Your task to perform on an android device: add a label to a message in the gmail app Image 0: 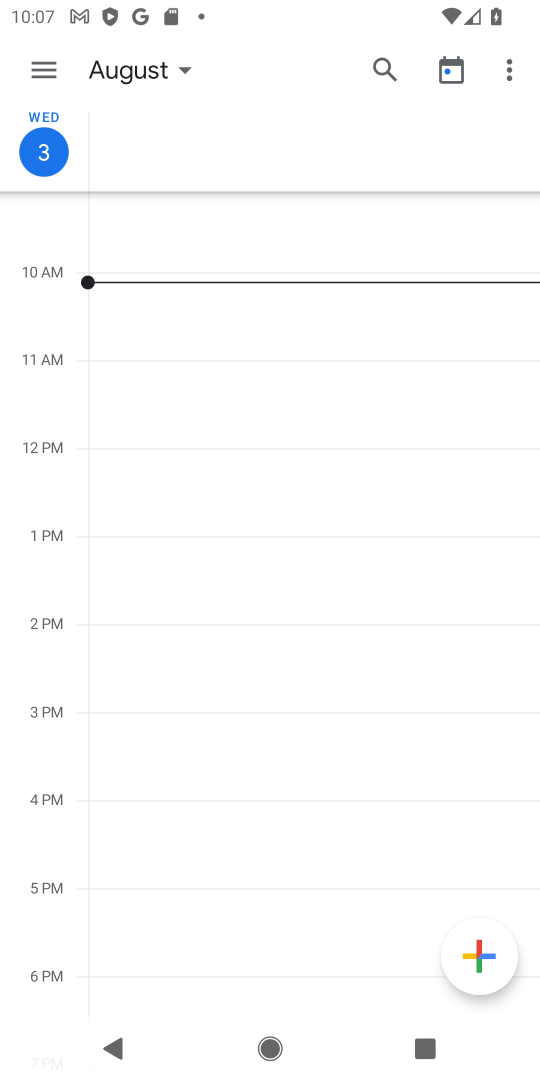
Step 0: press home button
Your task to perform on an android device: add a label to a message in the gmail app Image 1: 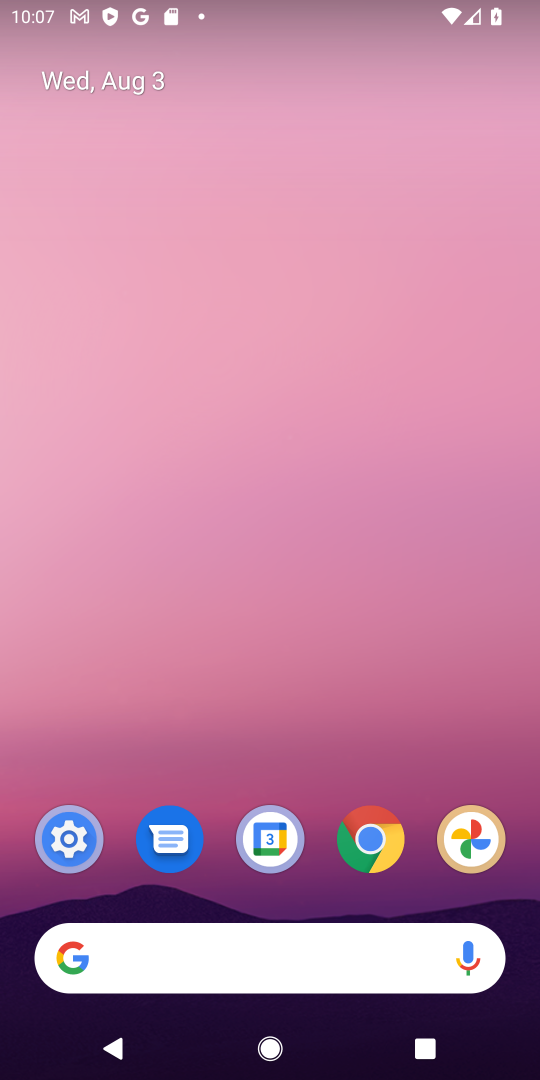
Step 1: drag from (265, 855) to (306, 107)
Your task to perform on an android device: add a label to a message in the gmail app Image 2: 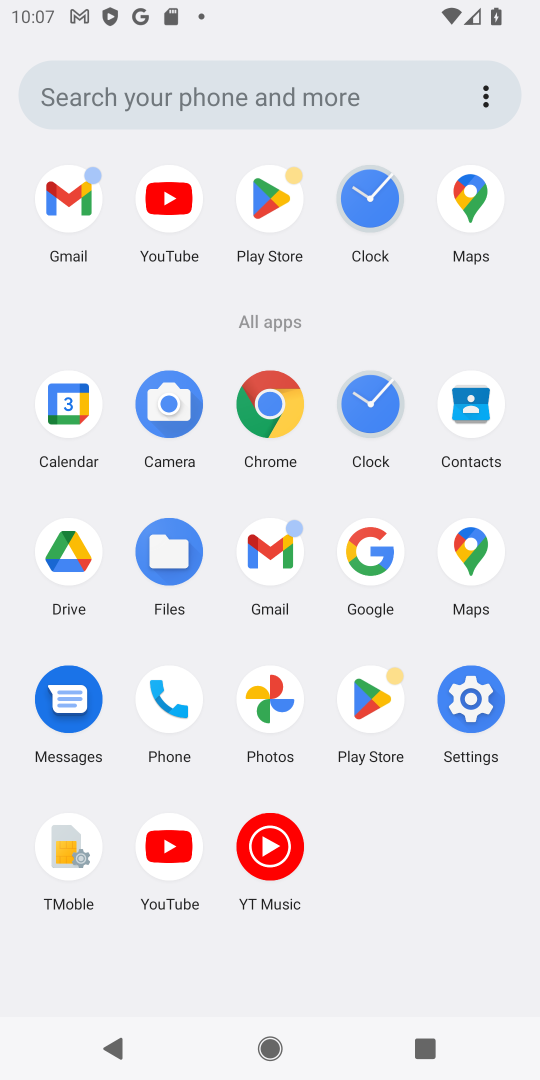
Step 2: click (268, 564)
Your task to perform on an android device: add a label to a message in the gmail app Image 3: 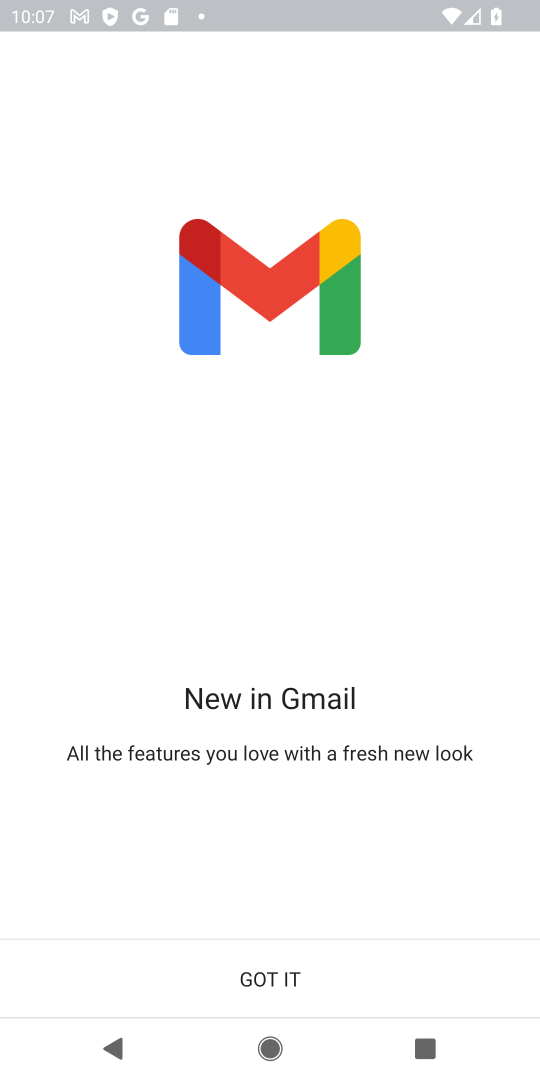
Step 3: click (287, 978)
Your task to perform on an android device: add a label to a message in the gmail app Image 4: 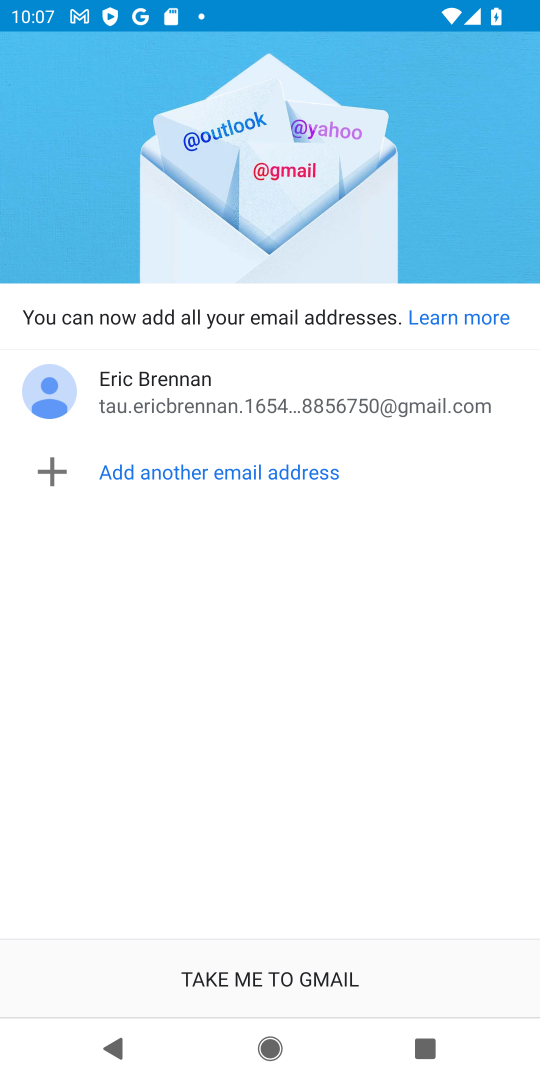
Step 4: click (296, 971)
Your task to perform on an android device: add a label to a message in the gmail app Image 5: 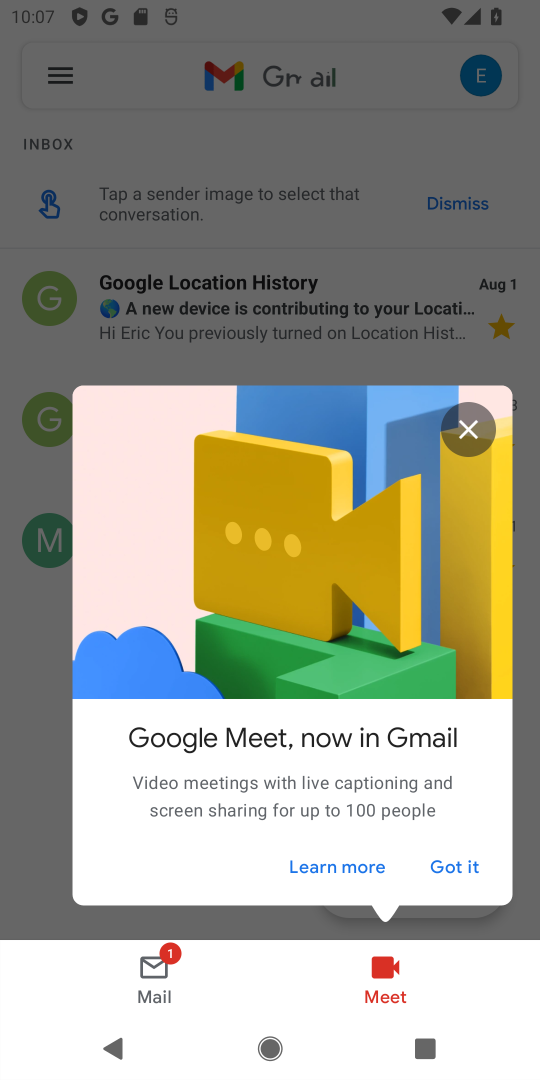
Step 5: click (459, 428)
Your task to perform on an android device: add a label to a message in the gmail app Image 6: 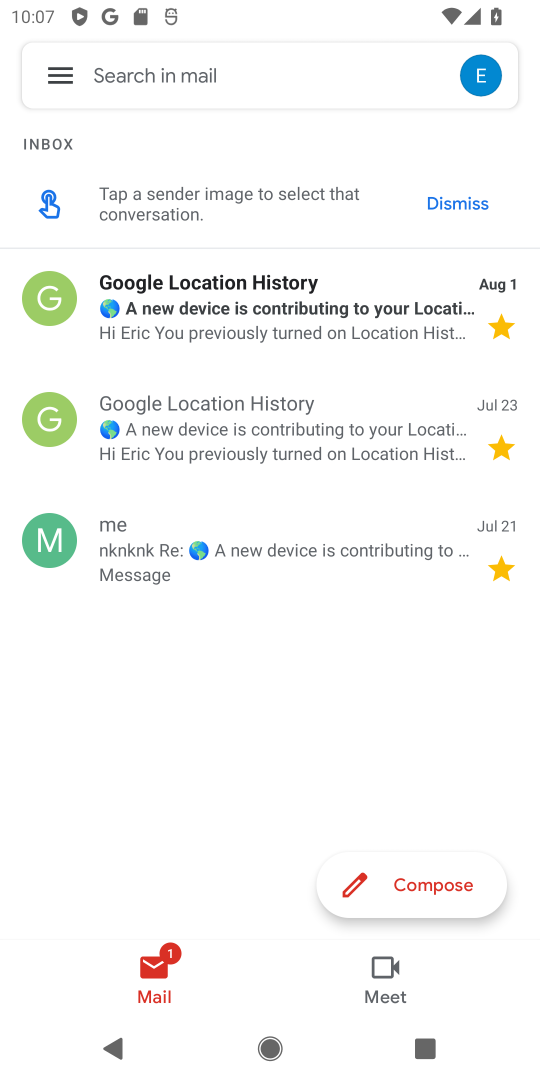
Step 6: click (46, 301)
Your task to perform on an android device: add a label to a message in the gmail app Image 7: 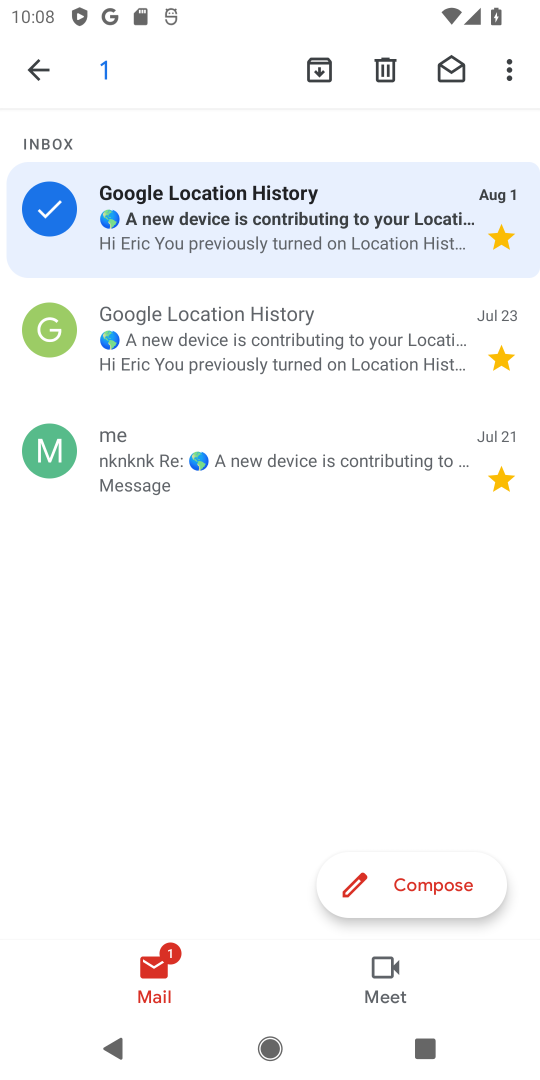
Step 7: click (508, 65)
Your task to perform on an android device: add a label to a message in the gmail app Image 8: 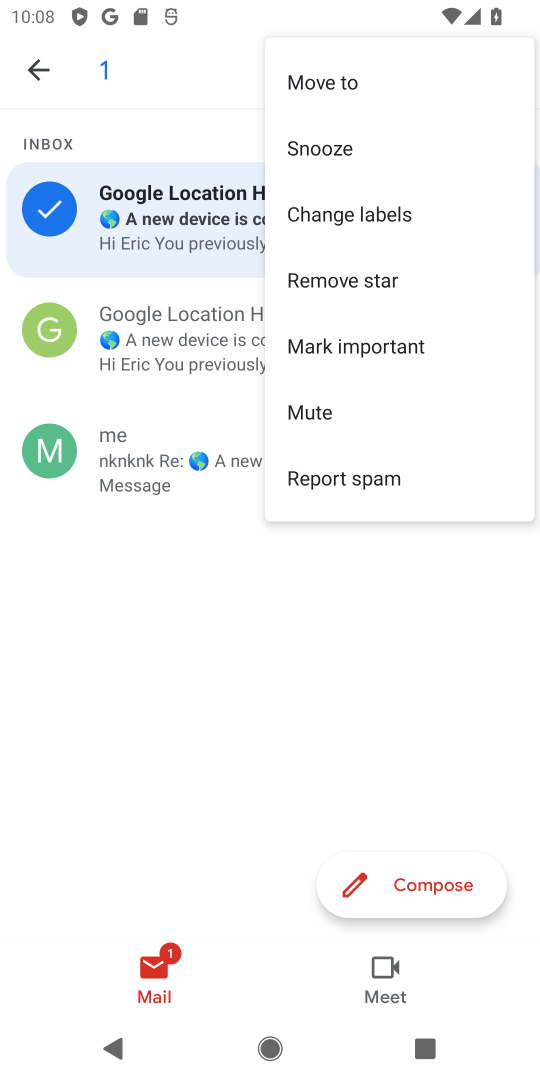
Step 8: click (393, 217)
Your task to perform on an android device: add a label to a message in the gmail app Image 9: 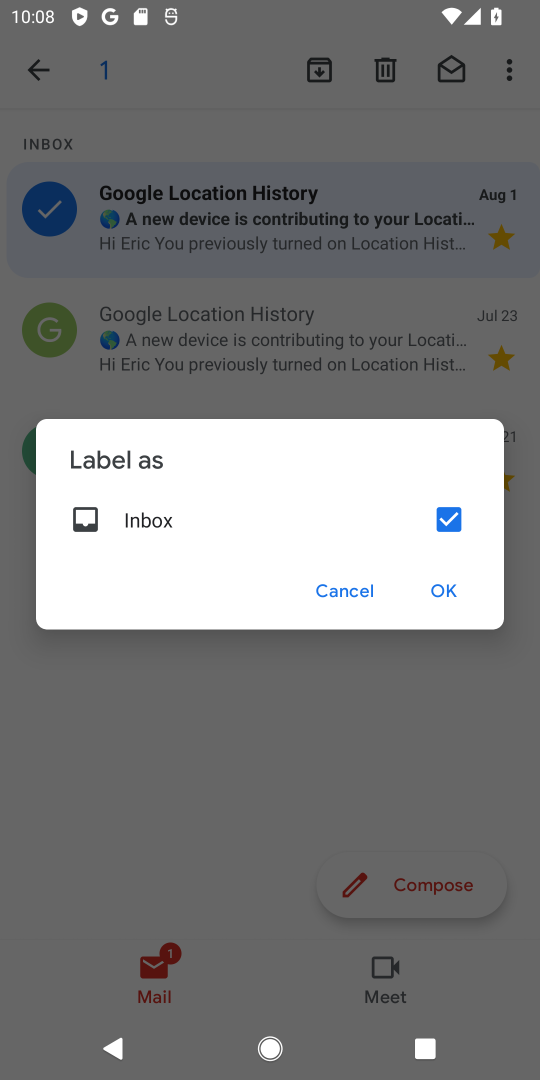
Step 9: click (442, 527)
Your task to perform on an android device: add a label to a message in the gmail app Image 10: 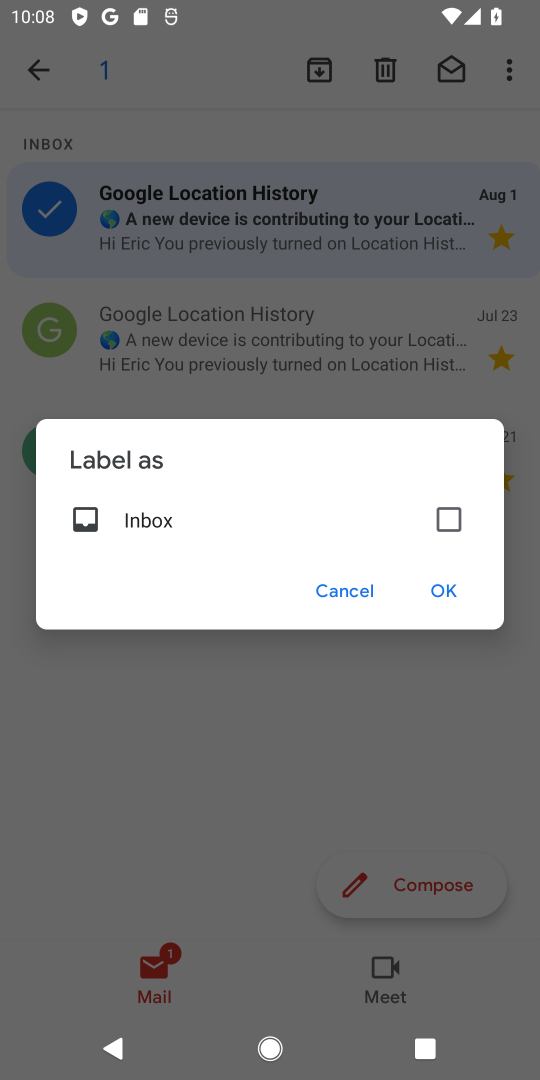
Step 10: click (431, 596)
Your task to perform on an android device: add a label to a message in the gmail app Image 11: 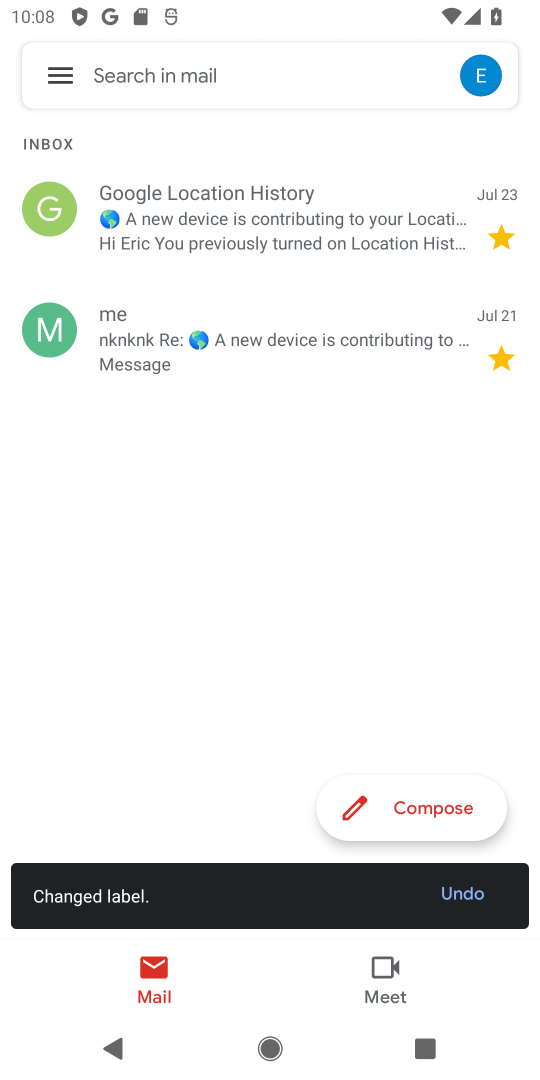
Step 11: task complete